Your task to perform on an android device: add a contact Image 0: 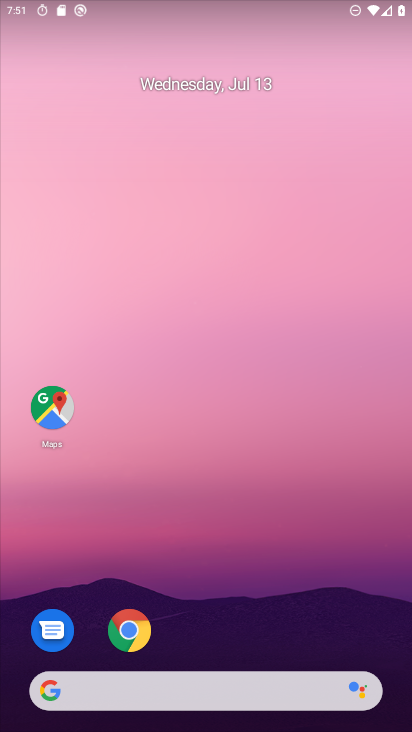
Step 0: drag from (354, 637) to (295, 17)
Your task to perform on an android device: add a contact Image 1: 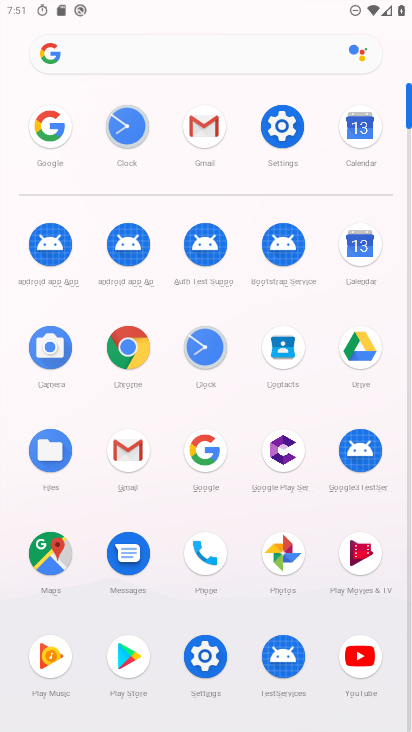
Step 1: click (285, 345)
Your task to perform on an android device: add a contact Image 2: 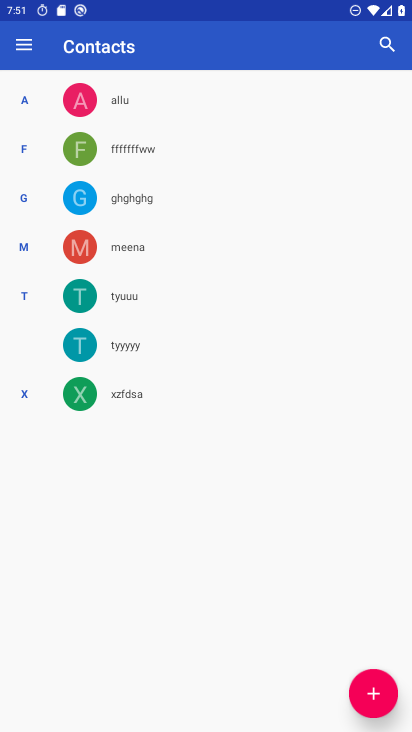
Step 2: click (374, 690)
Your task to perform on an android device: add a contact Image 3: 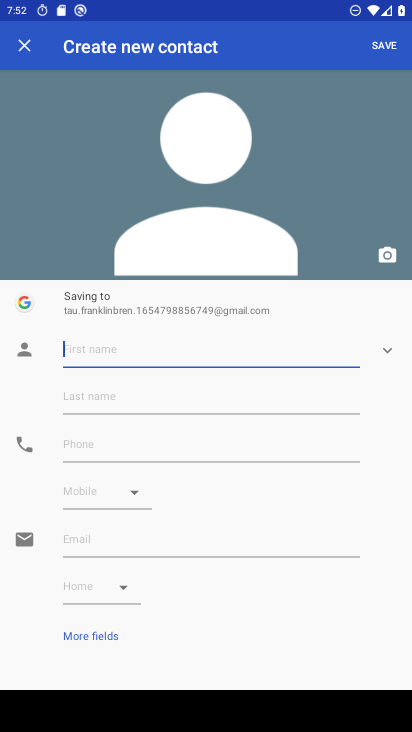
Step 3: type "window"
Your task to perform on an android device: add a contact Image 4: 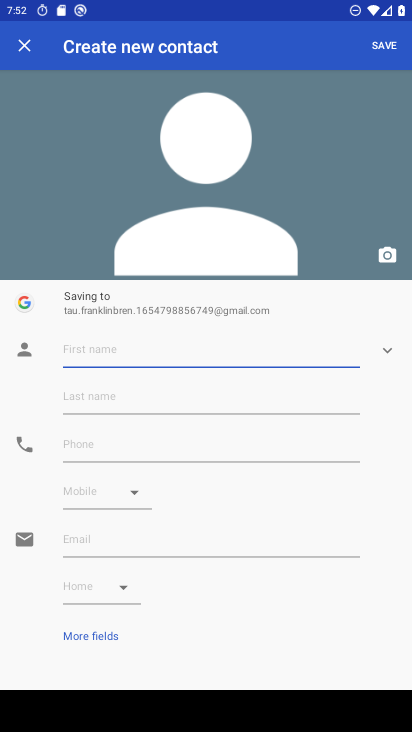
Step 4: click (376, 46)
Your task to perform on an android device: add a contact Image 5: 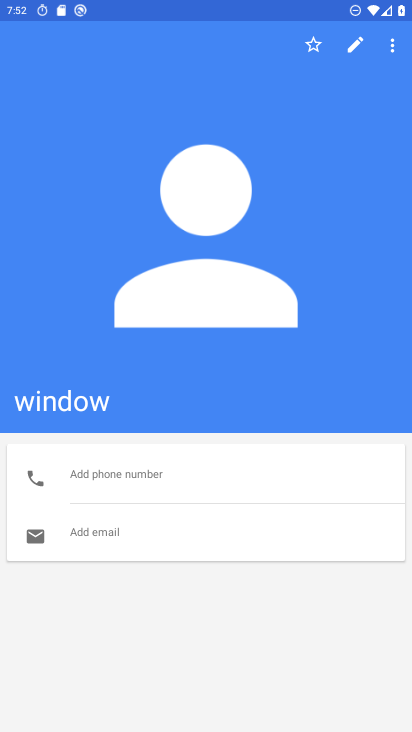
Step 5: task complete